Your task to perform on an android device: Set the phone to "Do not disturb". Image 0: 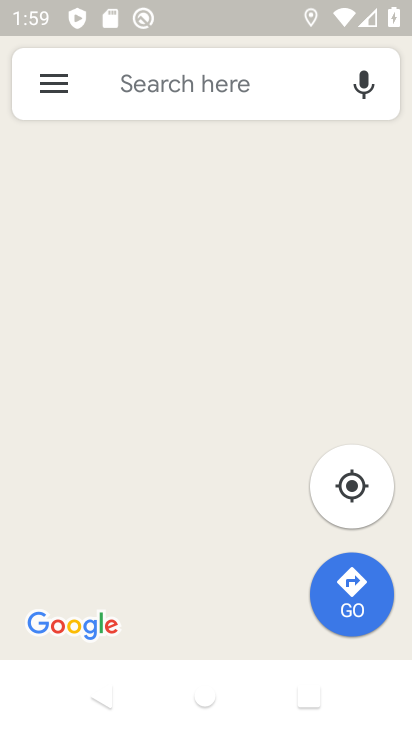
Step 0: press home button
Your task to perform on an android device: Set the phone to "Do not disturb". Image 1: 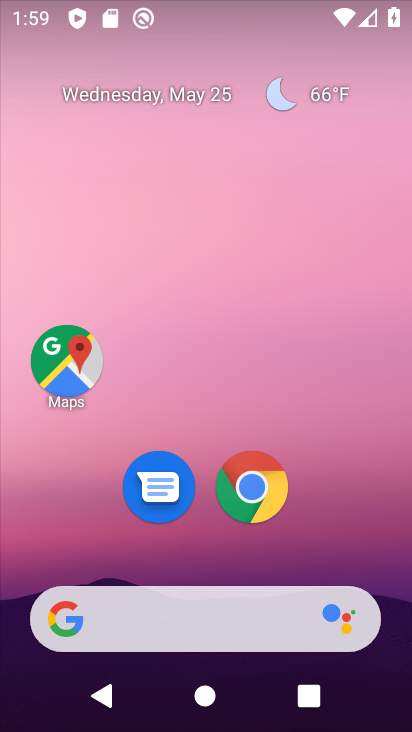
Step 1: drag from (201, 572) to (205, 164)
Your task to perform on an android device: Set the phone to "Do not disturb". Image 2: 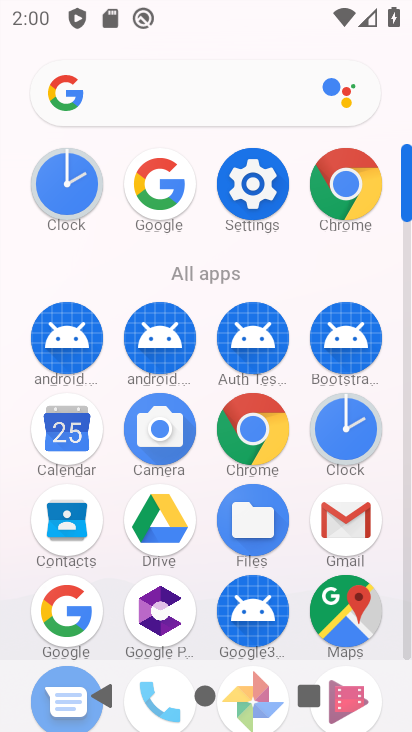
Step 2: click (265, 174)
Your task to perform on an android device: Set the phone to "Do not disturb". Image 3: 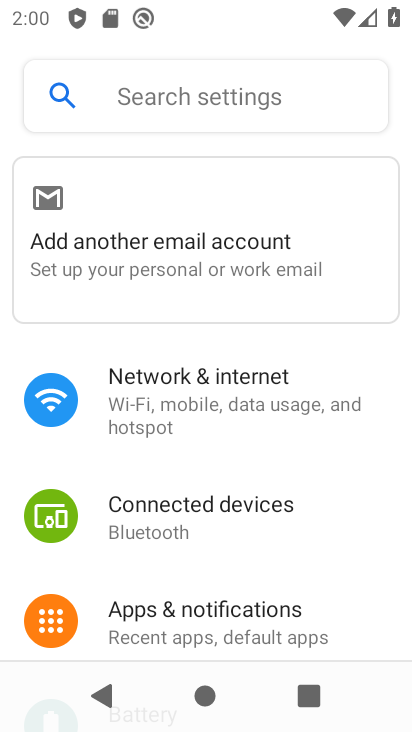
Step 3: drag from (190, 600) to (190, 309)
Your task to perform on an android device: Set the phone to "Do not disturb". Image 4: 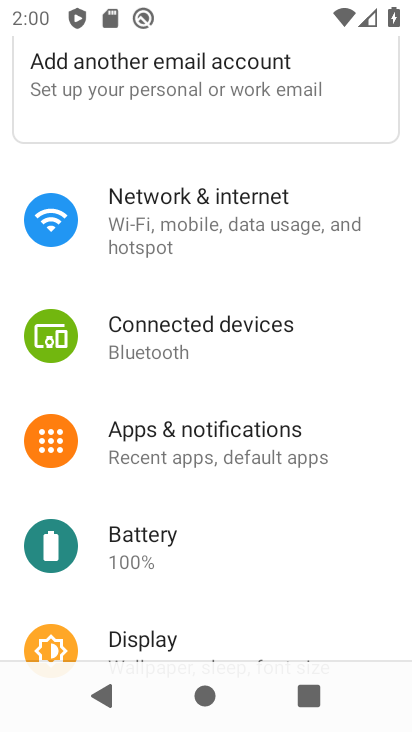
Step 4: drag from (164, 618) to (177, 379)
Your task to perform on an android device: Set the phone to "Do not disturb". Image 5: 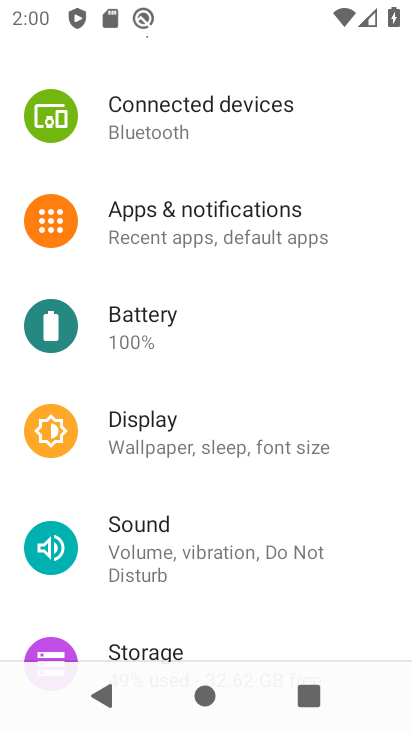
Step 5: drag from (176, 640) to (139, 319)
Your task to perform on an android device: Set the phone to "Do not disturb". Image 6: 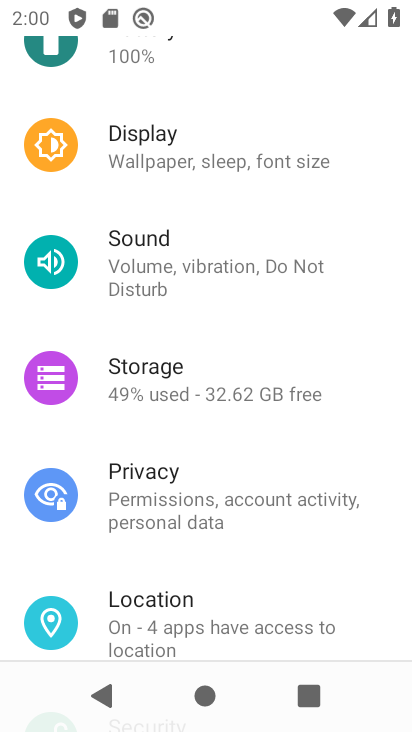
Step 6: click (178, 252)
Your task to perform on an android device: Set the phone to "Do not disturb". Image 7: 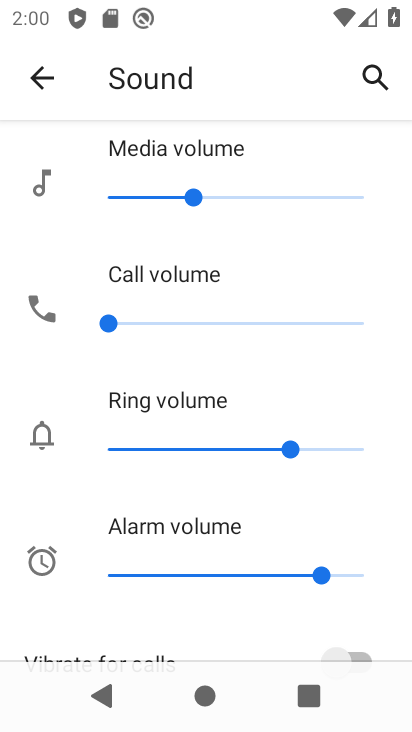
Step 7: task complete